Your task to perform on an android device: Open Google Image 0: 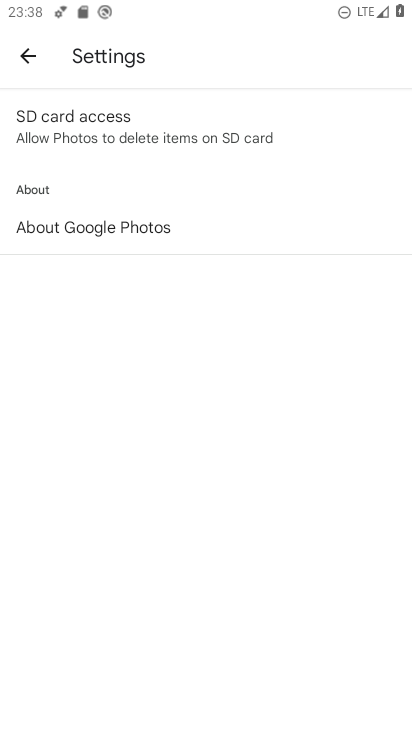
Step 0: press home button
Your task to perform on an android device: Open Google Image 1: 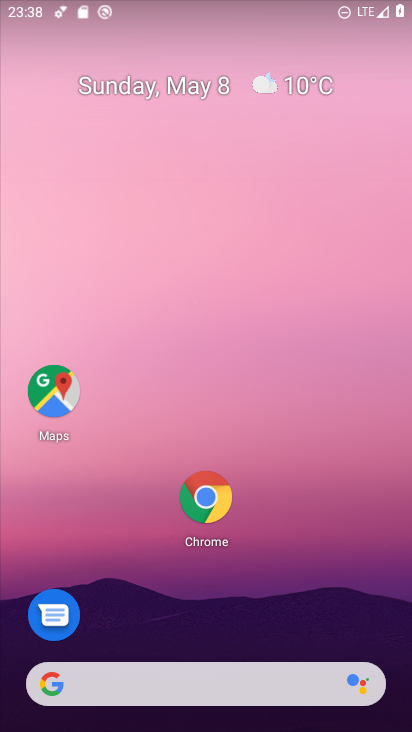
Step 1: drag from (328, 550) to (304, 12)
Your task to perform on an android device: Open Google Image 2: 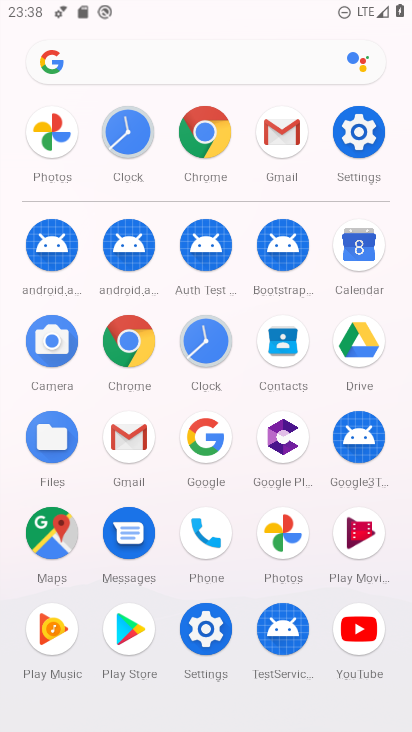
Step 2: click (203, 428)
Your task to perform on an android device: Open Google Image 3: 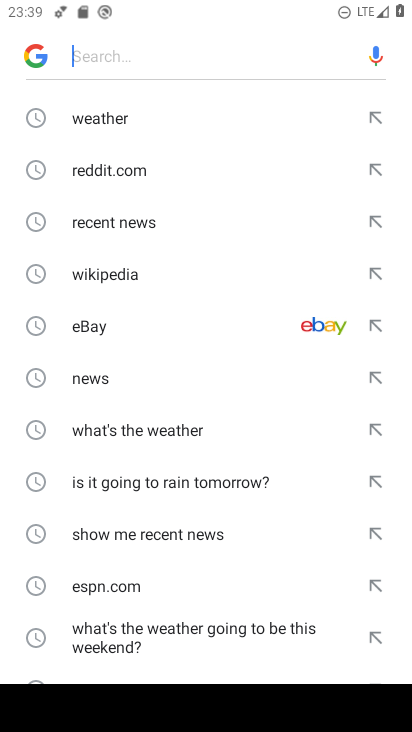
Step 3: task complete